Your task to perform on an android device: turn on sleep mode Image 0: 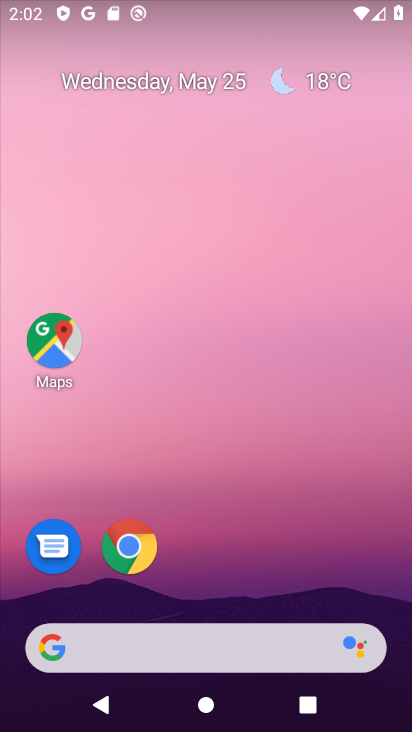
Step 0: drag from (217, 591) to (406, 162)
Your task to perform on an android device: turn on sleep mode Image 1: 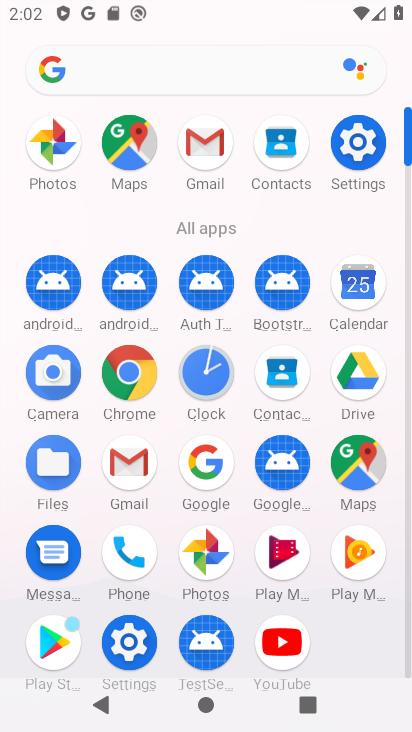
Step 1: click (126, 637)
Your task to perform on an android device: turn on sleep mode Image 2: 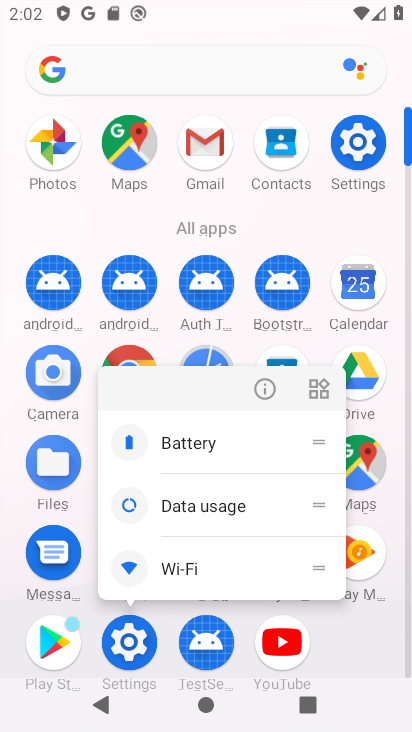
Step 2: click (133, 635)
Your task to perform on an android device: turn on sleep mode Image 3: 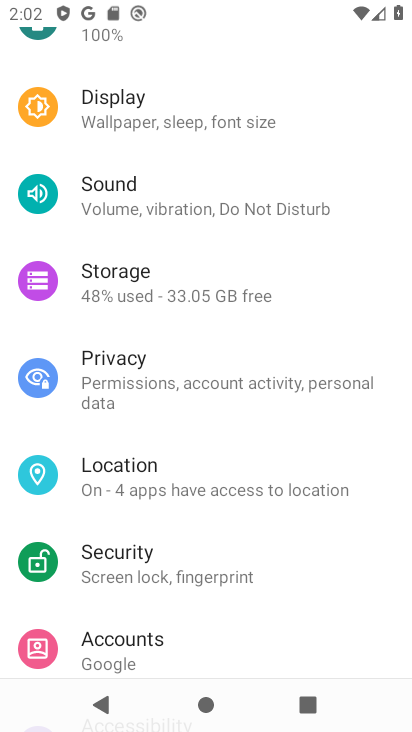
Step 3: drag from (279, 146) to (264, 584)
Your task to perform on an android device: turn on sleep mode Image 4: 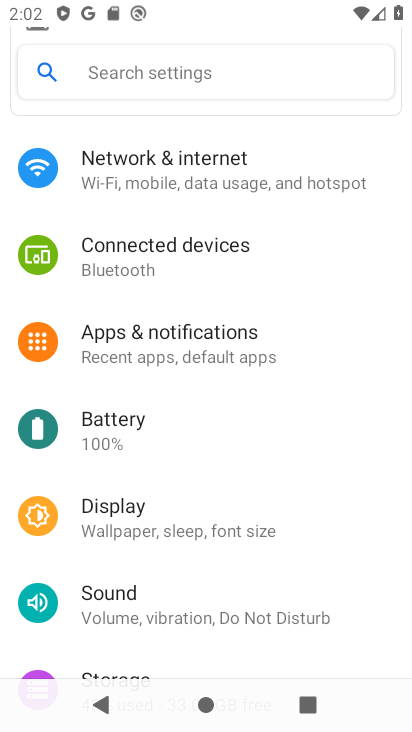
Step 4: click (209, 61)
Your task to perform on an android device: turn on sleep mode Image 5: 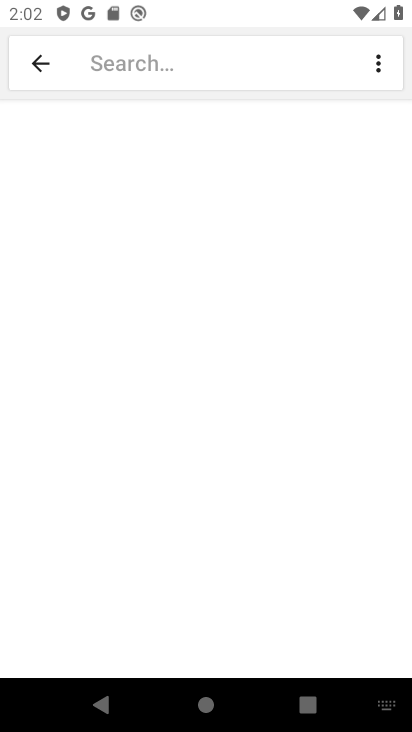
Step 5: type "sleep mode"
Your task to perform on an android device: turn on sleep mode Image 6: 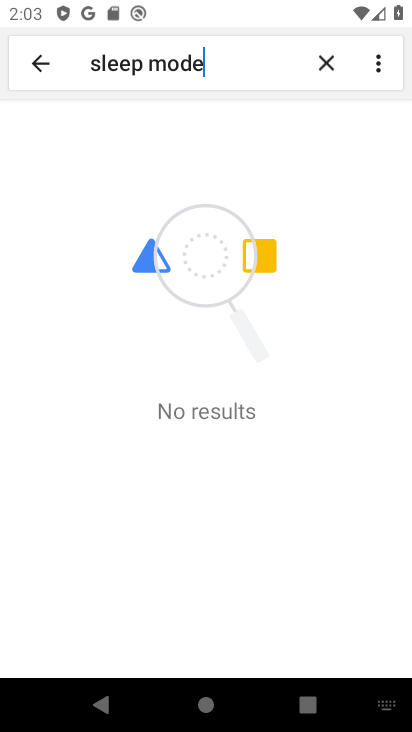
Step 6: task complete